Your task to perform on an android device: Go to sound settings Image 0: 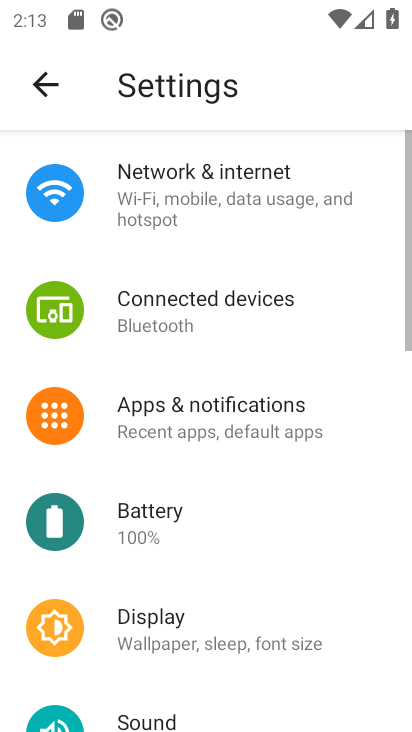
Step 0: drag from (204, 540) to (306, 74)
Your task to perform on an android device: Go to sound settings Image 1: 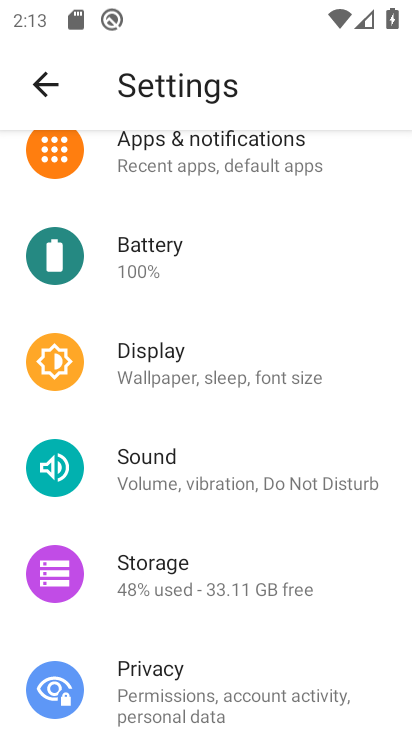
Step 1: click (177, 487)
Your task to perform on an android device: Go to sound settings Image 2: 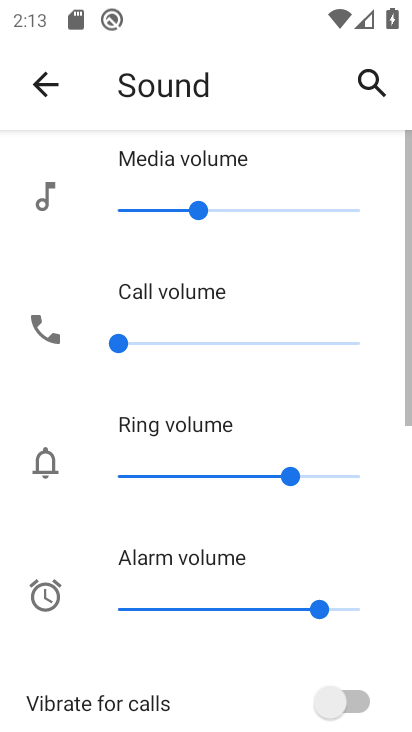
Step 2: task complete